Your task to perform on an android device: turn pop-ups on in chrome Image 0: 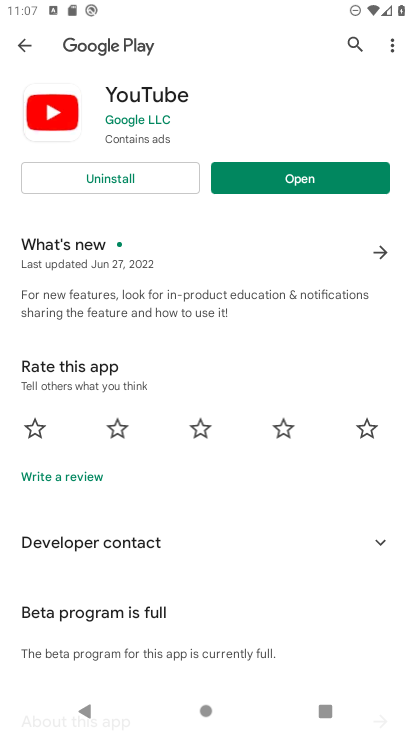
Step 0: press home button
Your task to perform on an android device: turn pop-ups on in chrome Image 1: 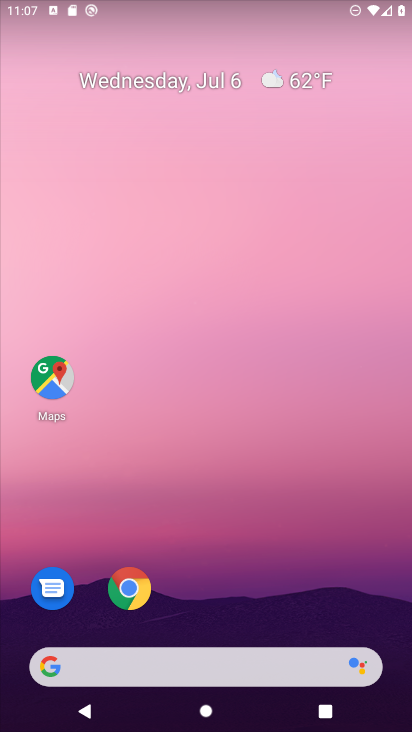
Step 1: click (127, 591)
Your task to perform on an android device: turn pop-ups on in chrome Image 2: 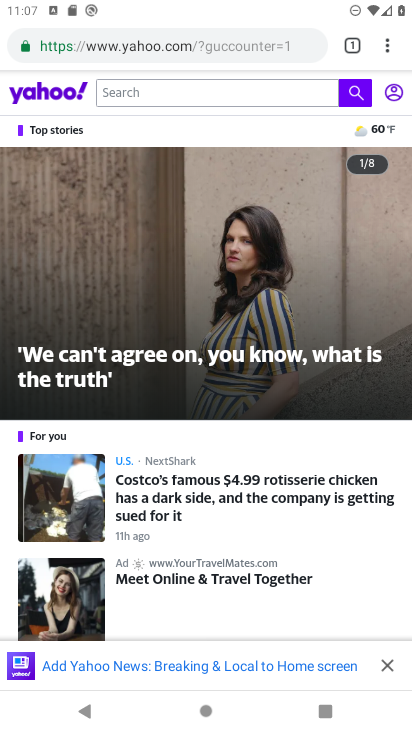
Step 2: click (383, 49)
Your task to perform on an android device: turn pop-ups on in chrome Image 3: 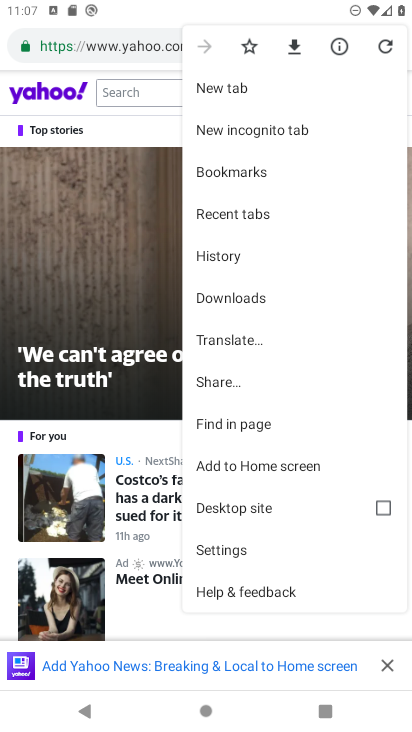
Step 3: click (234, 548)
Your task to perform on an android device: turn pop-ups on in chrome Image 4: 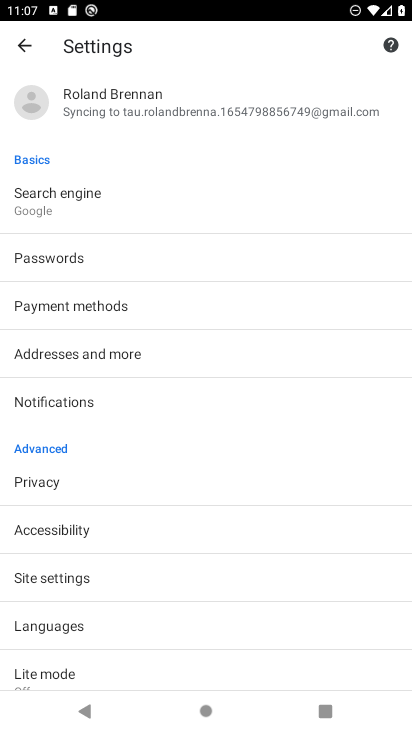
Step 4: click (73, 577)
Your task to perform on an android device: turn pop-ups on in chrome Image 5: 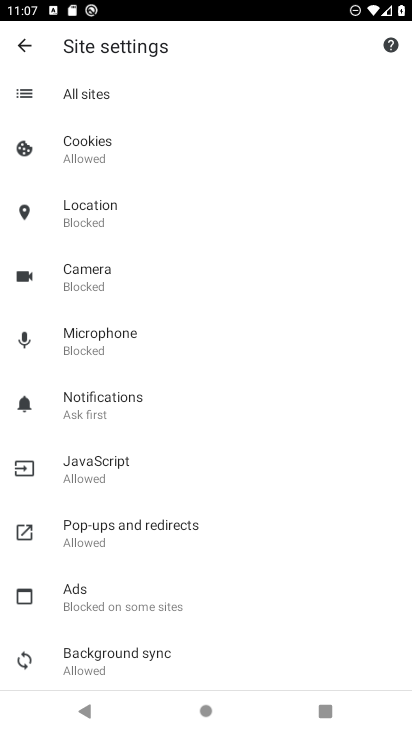
Step 5: click (98, 523)
Your task to perform on an android device: turn pop-ups on in chrome Image 6: 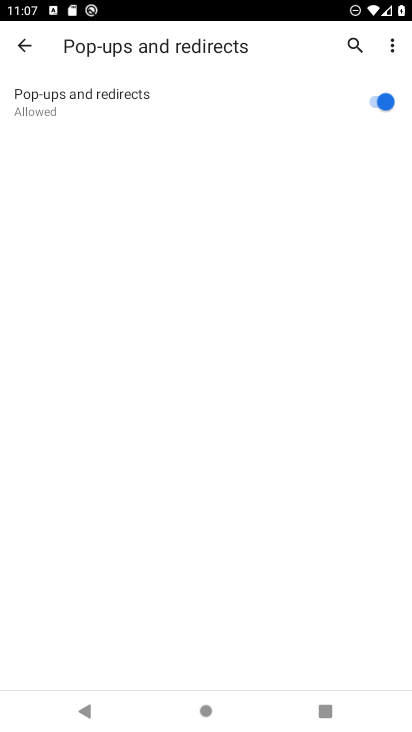
Step 6: task complete